Your task to perform on an android device: Search for Mexican restaurants on Maps Image 0: 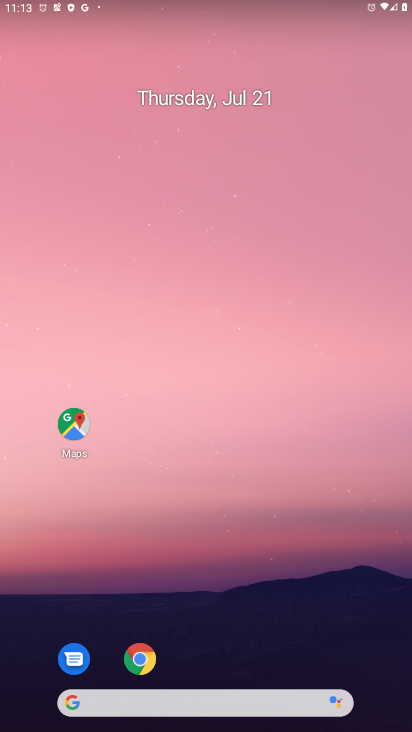
Step 0: click (70, 428)
Your task to perform on an android device: Search for Mexican restaurants on Maps Image 1: 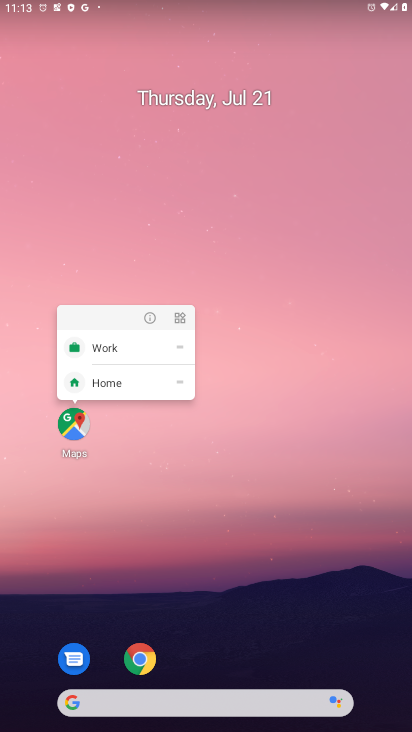
Step 1: click (69, 426)
Your task to perform on an android device: Search for Mexican restaurants on Maps Image 2: 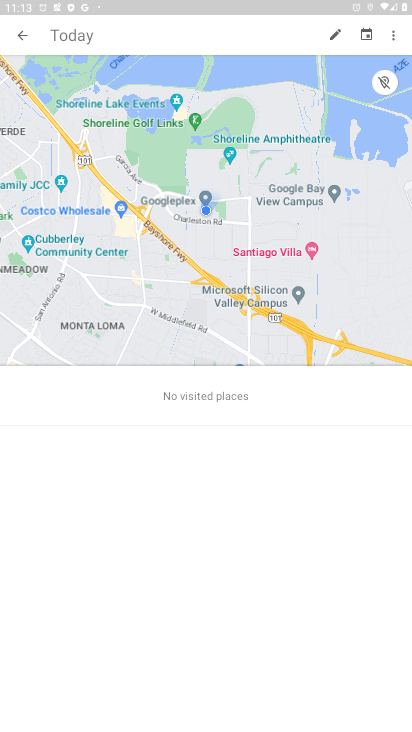
Step 2: press back button
Your task to perform on an android device: Search for Mexican restaurants on Maps Image 3: 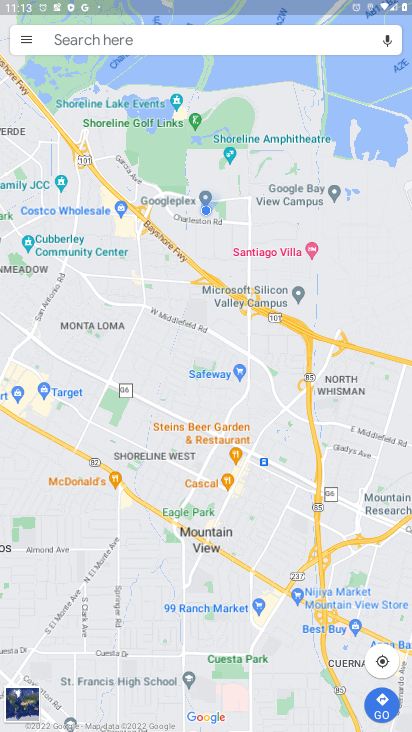
Step 3: click (152, 38)
Your task to perform on an android device: Search for Mexican restaurants on Maps Image 4: 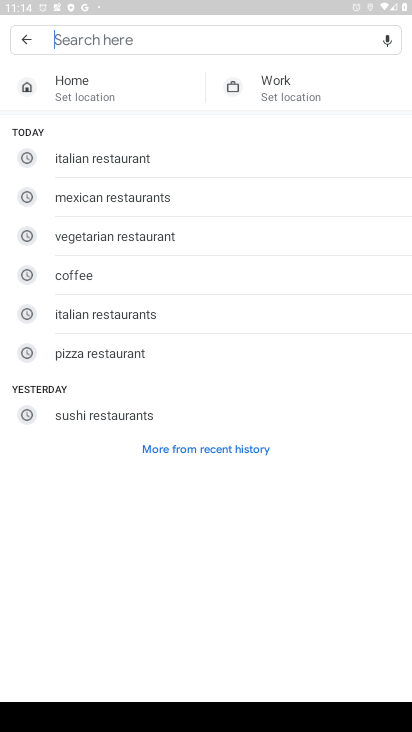
Step 4: type "Mexican restaurants"
Your task to perform on an android device: Search for Mexican restaurants on Maps Image 5: 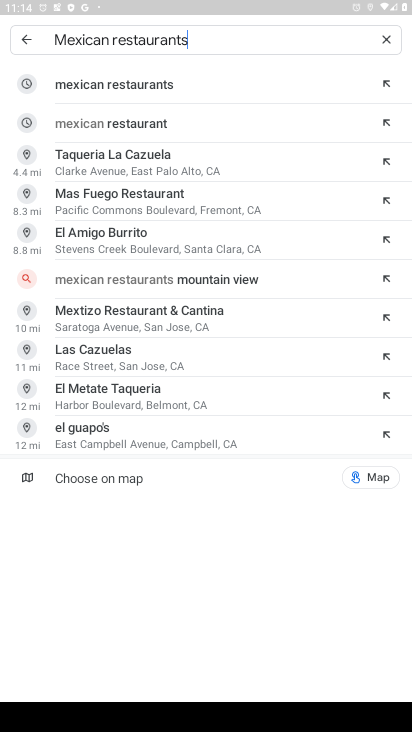
Step 5: click (128, 87)
Your task to perform on an android device: Search for Mexican restaurants on Maps Image 6: 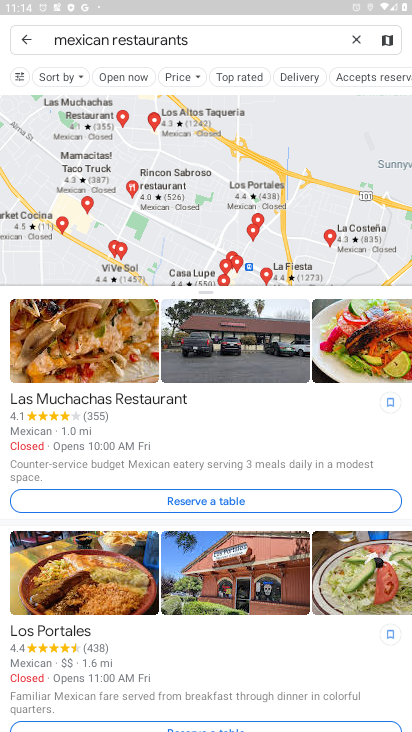
Step 6: task complete